Your task to perform on an android device: turn off translation in the chrome app Image 0: 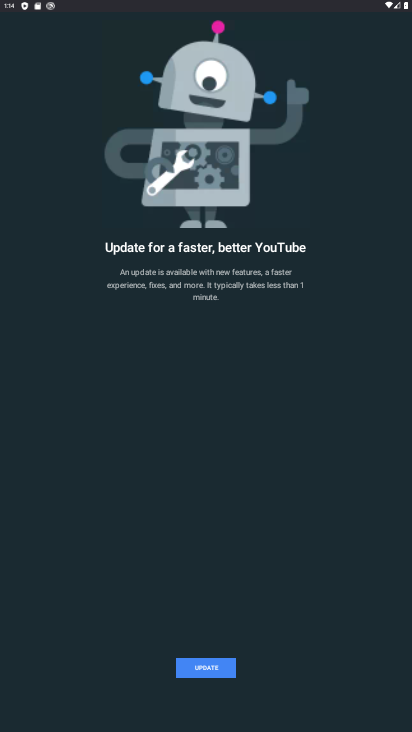
Step 0: press back button
Your task to perform on an android device: turn off translation in the chrome app Image 1: 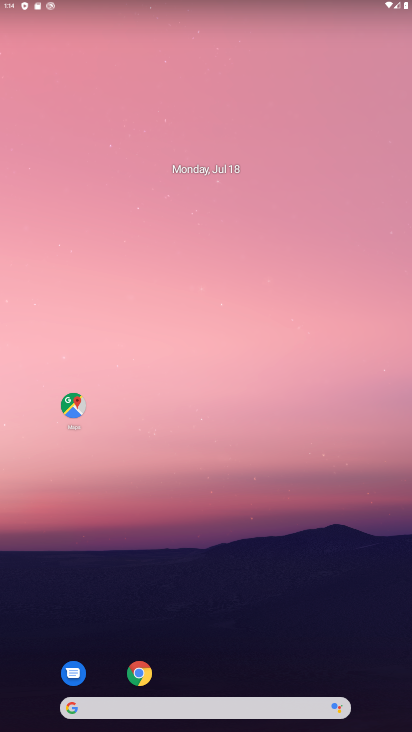
Step 1: click (134, 669)
Your task to perform on an android device: turn off translation in the chrome app Image 2: 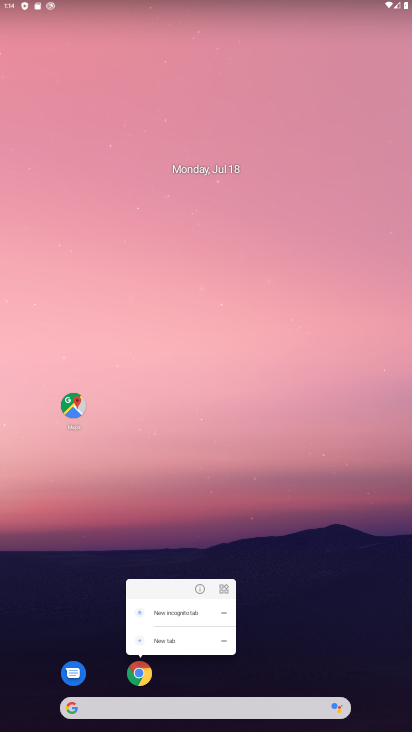
Step 2: click (131, 668)
Your task to perform on an android device: turn off translation in the chrome app Image 3: 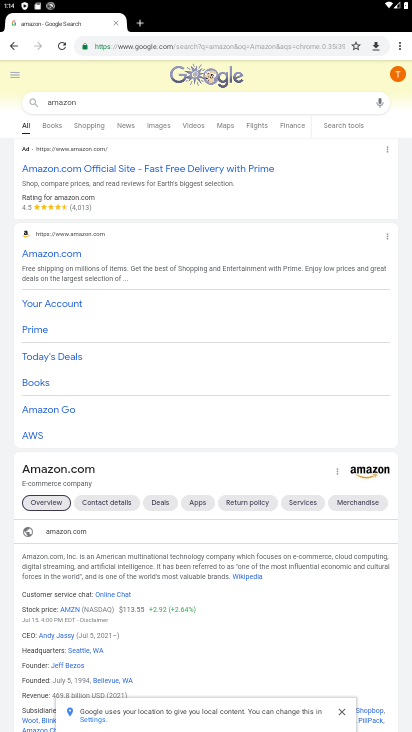
Step 3: click (403, 47)
Your task to perform on an android device: turn off translation in the chrome app Image 4: 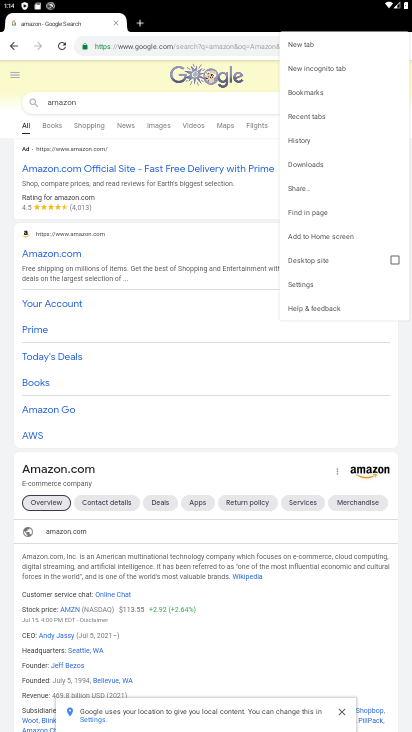
Step 4: click (401, 44)
Your task to perform on an android device: turn off translation in the chrome app Image 5: 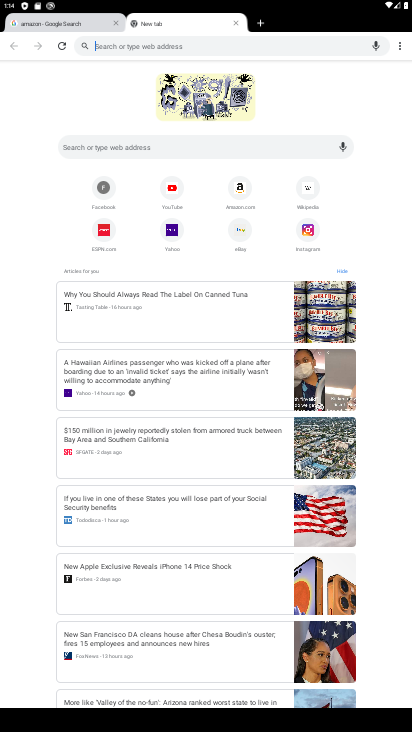
Step 5: click (399, 43)
Your task to perform on an android device: turn off translation in the chrome app Image 6: 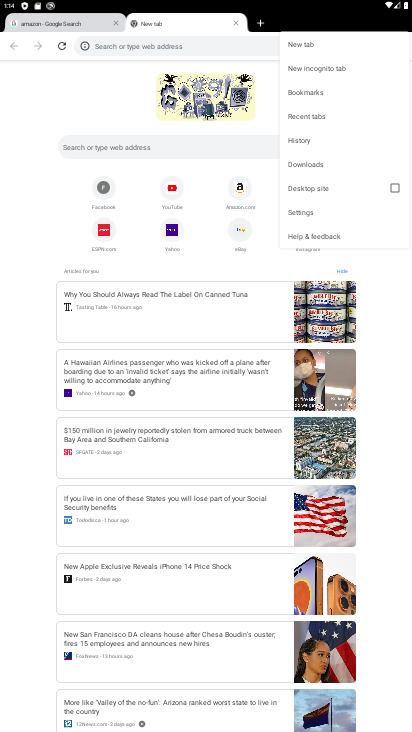
Step 6: click (399, 50)
Your task to perform on an android device: turn off translation in the chrome app Image 7: 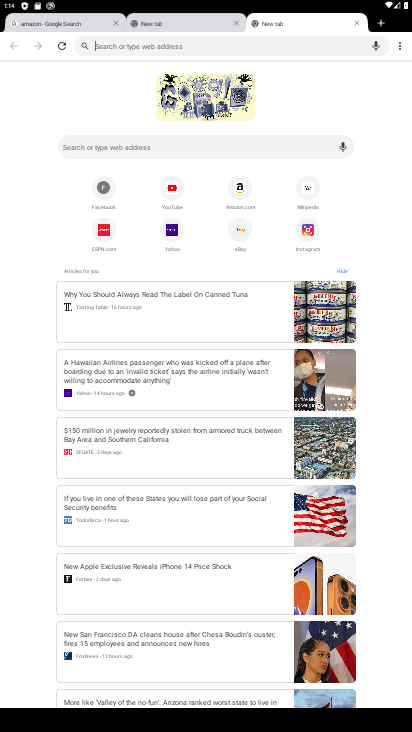
Step 7: click (398, 49)
Your task to perform on an android device: turn off translation in the chrome app Image 8: 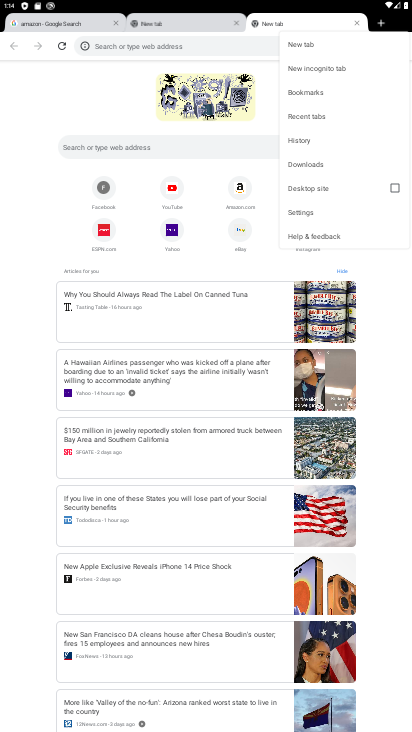
Step 8: click (305, 202)
Your task to perform on an android device: turn off translation in the chrome app Image 9: 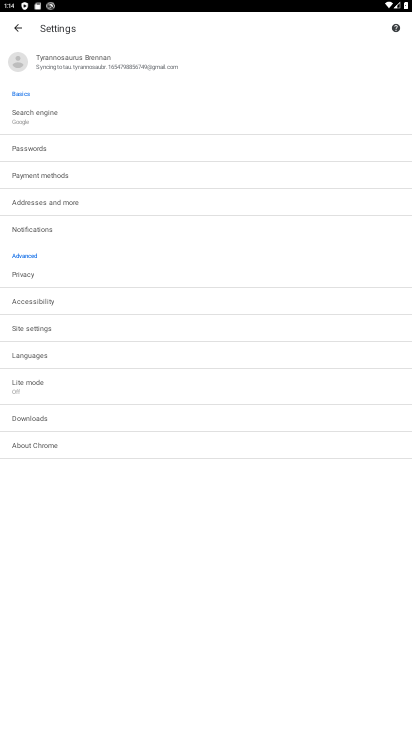
Step 9: click (42, 353)
Your task to perform on an android device: turn off translation in the chrome app Image 10: 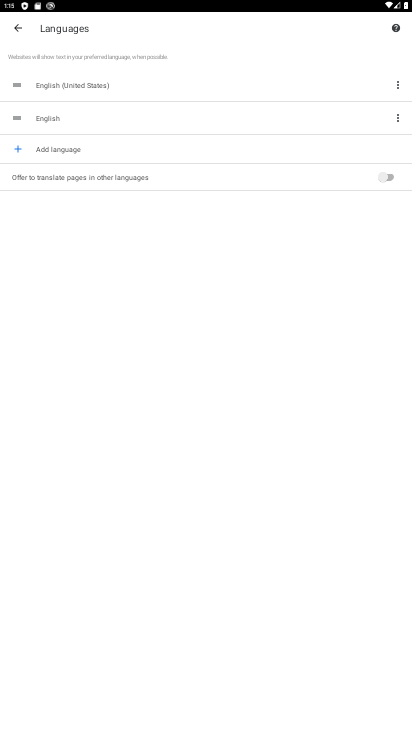
Step 10: task complete